Your task to perform on an android device: Open wifi settings Image 0: 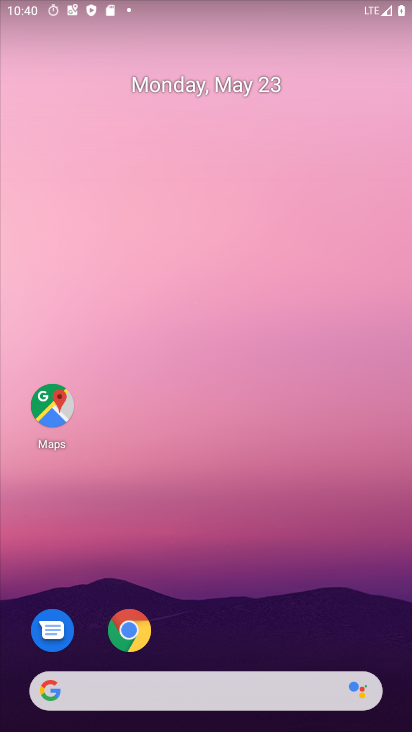
Step 0: drag from (286, 650) to (304, 5)
Your task to perform on an android device: Open wifi settings Image 1: 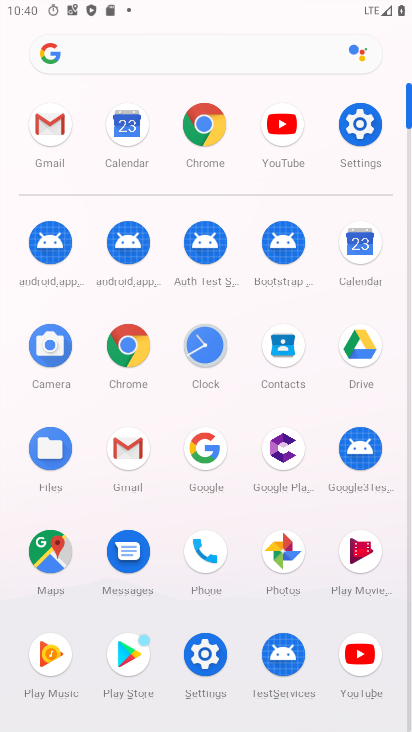
Step 1: click (364, 127)
Your task to perform on an android device: Open wifi settings Image 2: 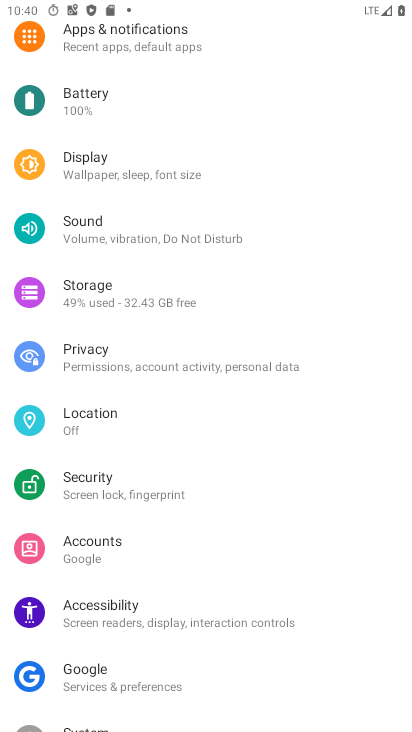
Step 2: drag from (356, 121) to (301, 542)
Your task to perform on an android device: Open wifi settings Image 3: 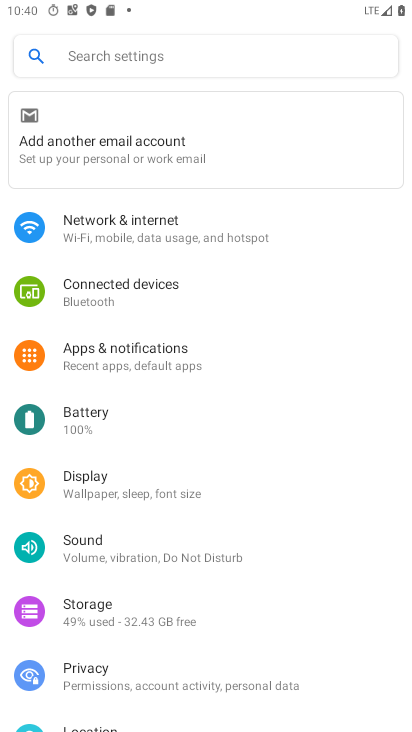
Step 3: click (128, 240)
Your task to perform on an android device: Open wifi settings Image 4: 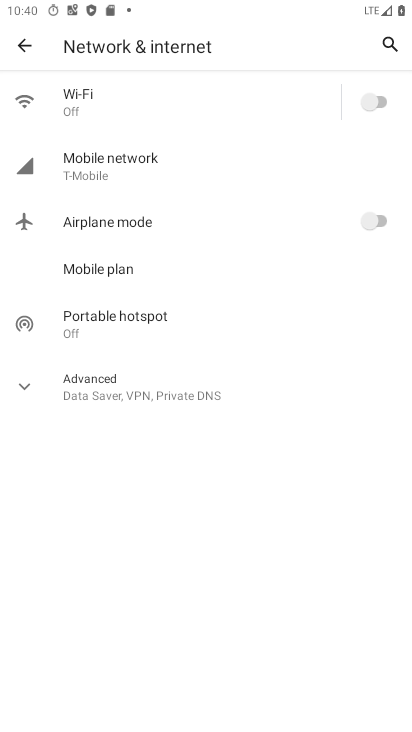
Step 4: click (34, 101)
Your task to perform on an android device: Open wifi settings Image 5: 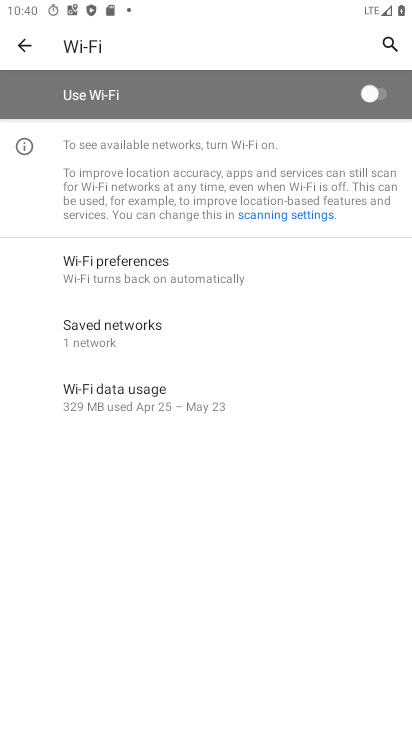
Step 5: task complete